Your task to perform on an android device: What's the weather? Image 0: 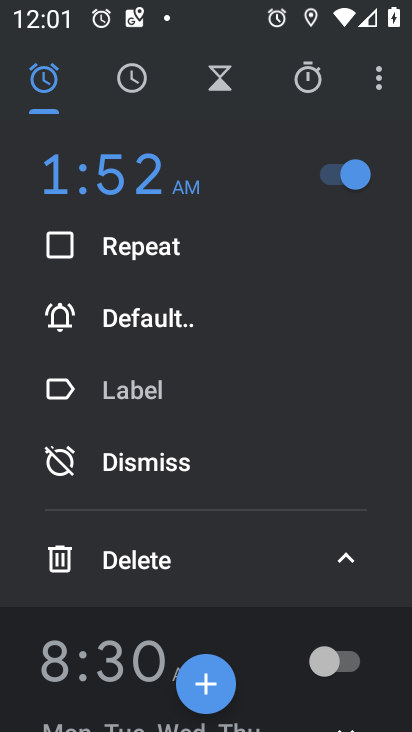
Step 0: press back button
Your task to perform on an android device: What's the weather? Image 1: 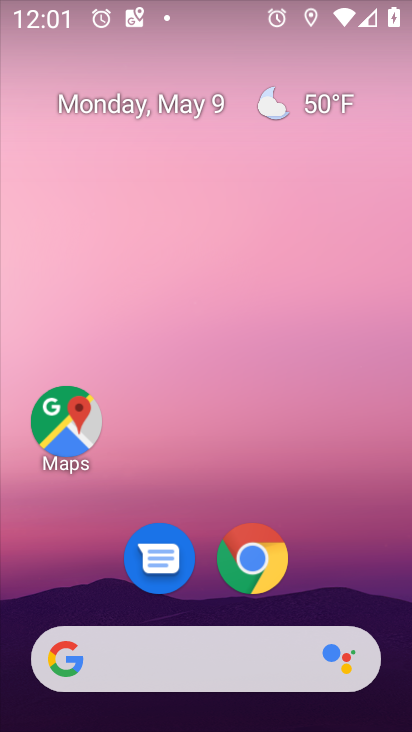
Step 1: click (305, 99)
Your task to perform on an android device: What's the weather? Image 2: 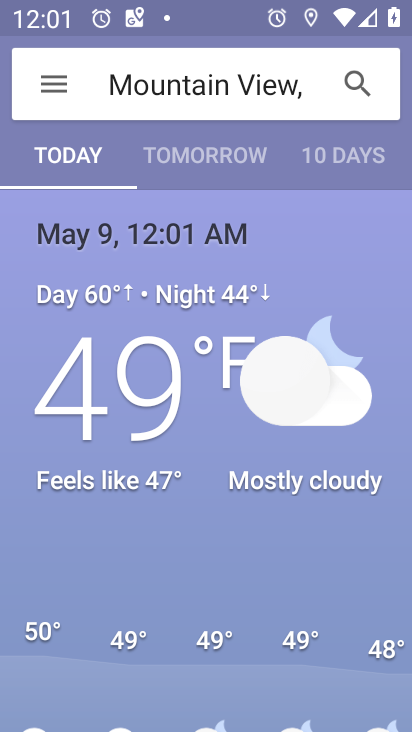
Step 2: task complete